Your task to perform on an android device: Show me productivity apps on the Play Store Image 0: 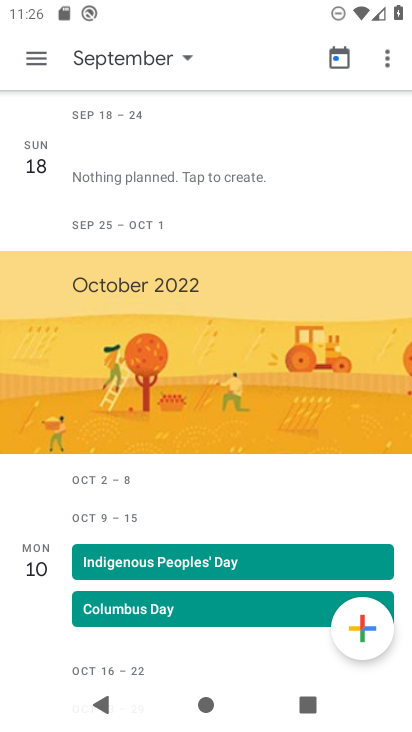
Step 0: click (34, 53)
Your task to perform on an android device: Show me productivity apps on the Play Store Image 1: 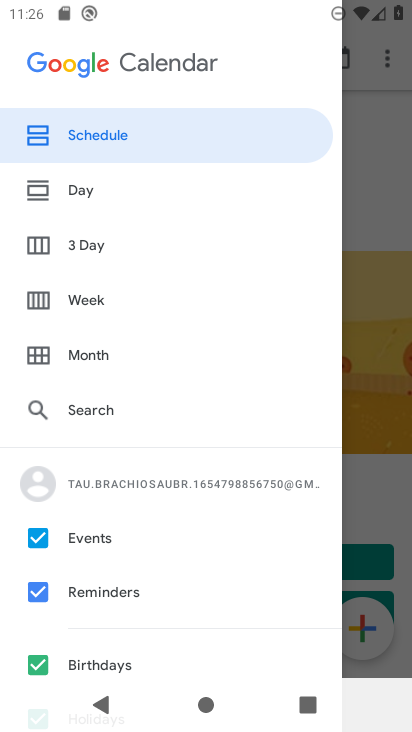
Step 1: drag from (128, 620) to (164, 334)
Your task to perform on an android device: Show me productivity apps on the Play Store Image 2: 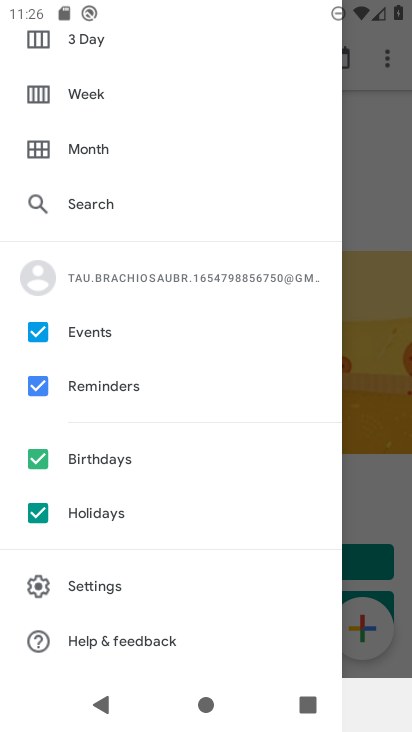
Step 2: press home button
Your task to perform on an android device: Show me productivity apps on the Play Store Image 3: 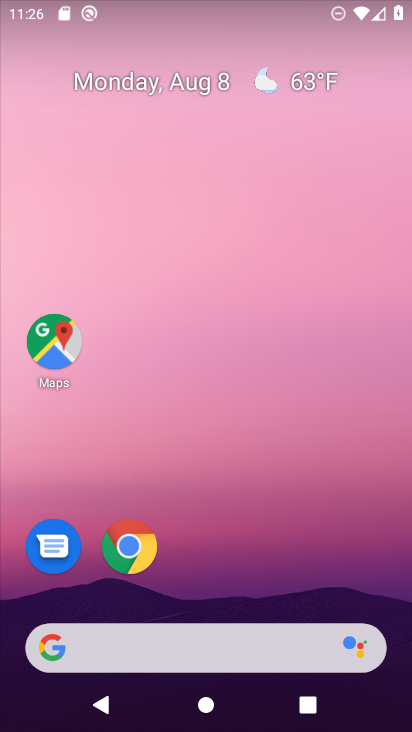
Step 3: drag from (209, 584) to (196, 38)
Your task to perform on an android device: Show me productivity apps on the Play Store Image 4: 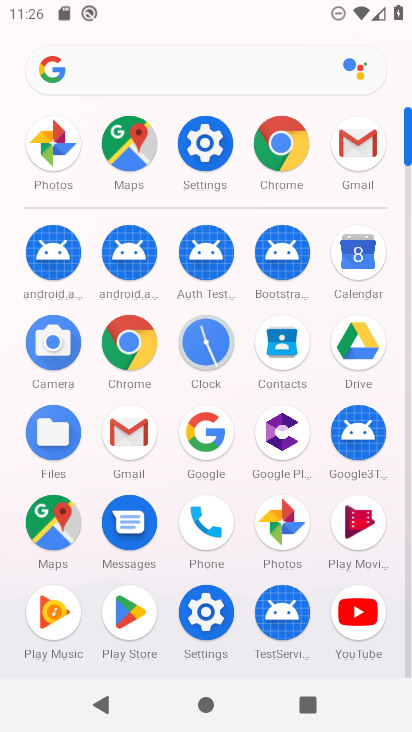
Step 4: click (126, 610)
Your task to perform on an android device: Show me productivity apps on the Play Store Image 5: 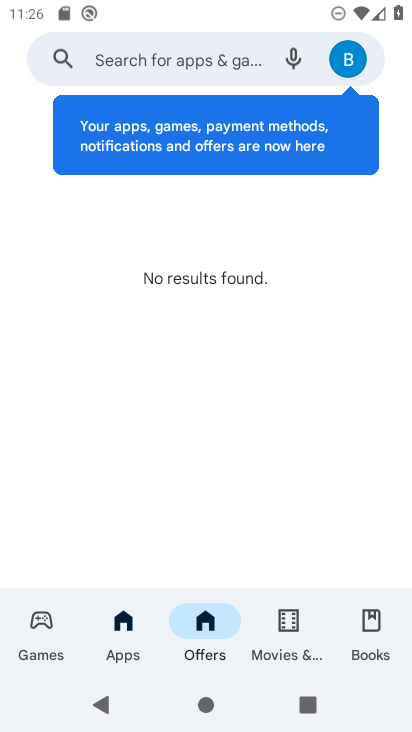
Step 5: click (110, 625)
Your task to perform on an android device: Show me productivity apps on the Play Store Image 6: 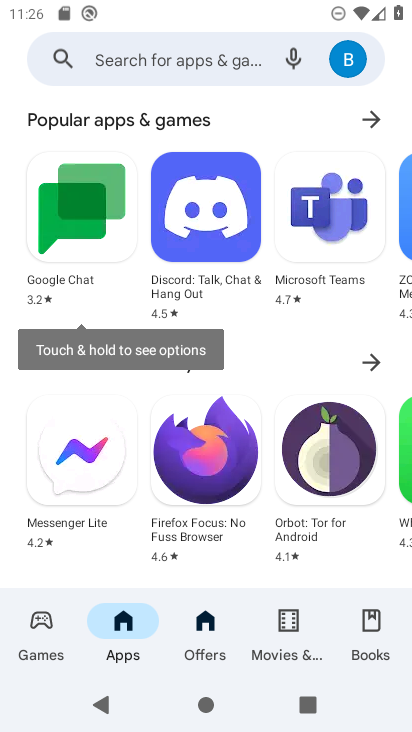
Step 6: drag from (198, 124) to (214, 617)
Your task to perform on an android device: Show me productivity apps on the Play Store Image 7: 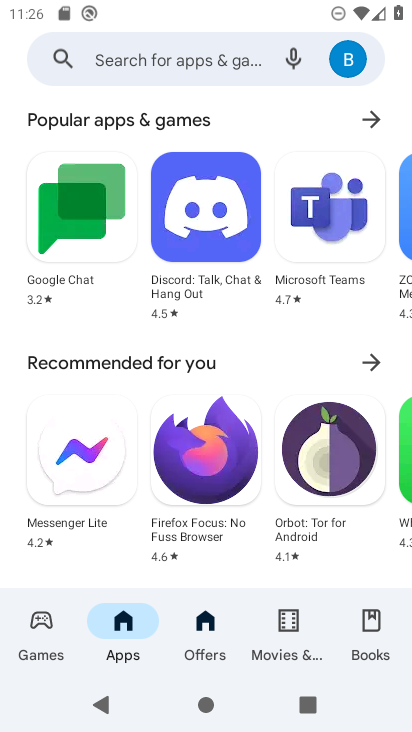
Step 7: click (43, 619)
Your task to perform on an android device: Show me productivity apps on the Play Store Image 8: 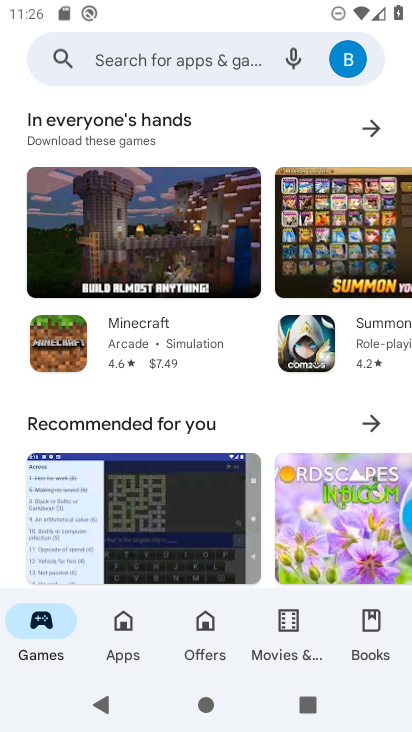
Step 8: click (121, 618)
Your task to perform on an android device: Show me productivity apps on the Play Store Image 9: 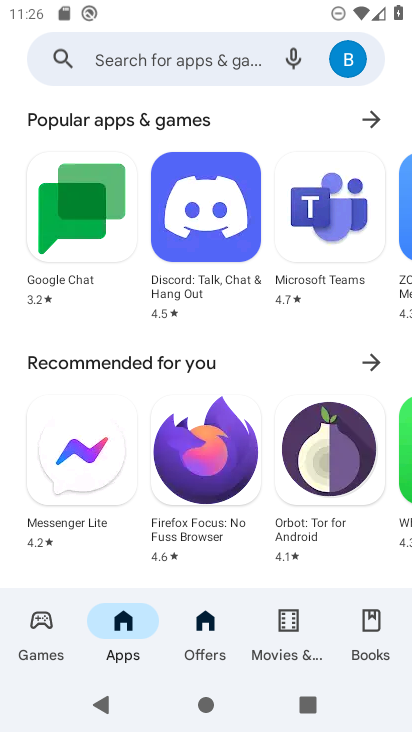
Step 9: drag from (221, 506) to (238, 129)
Your task to perform on an android device: Show me productivity apps on the Play Store Image 10: 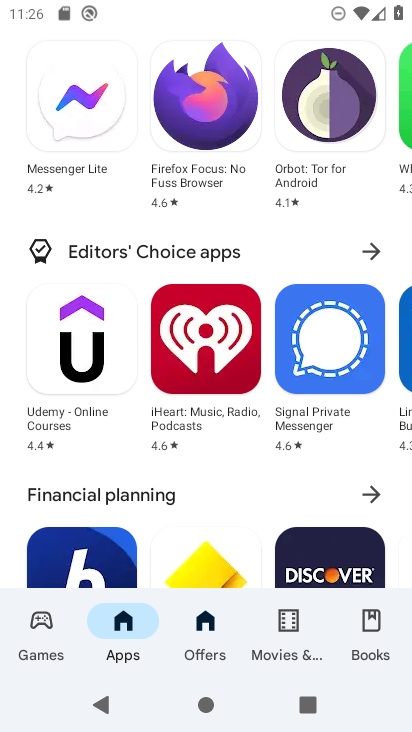
Step 10: drag from (222, 493) to (236, 77)
Your task to perform on an android device: Show me productivity apps on the Play Store Image 11: 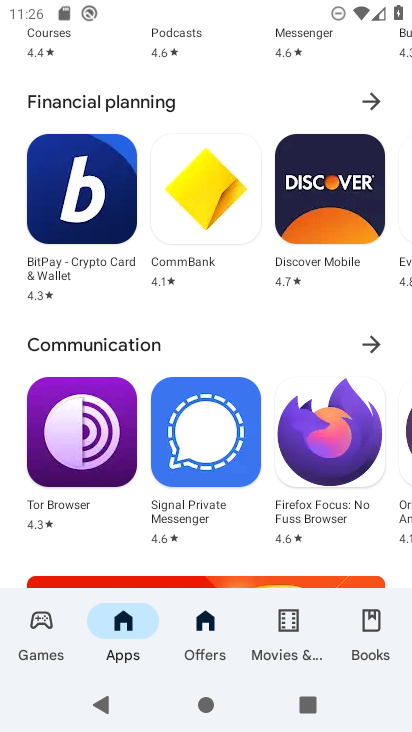
Step 11: drag from (241, 563) to (245, 170)
Your task to perform on an android device: Show me productivity apps on the Play Store Image 12: 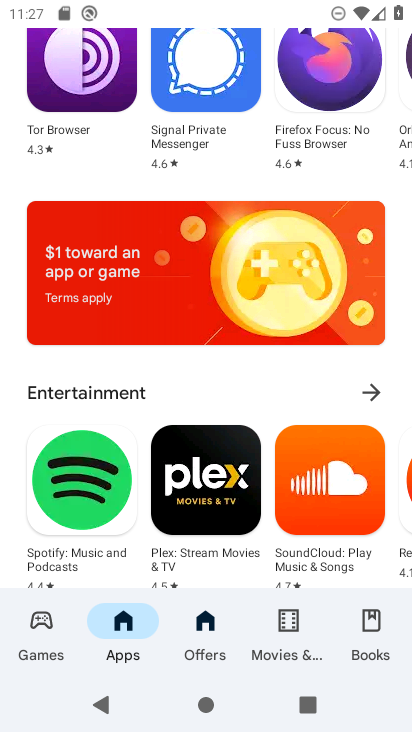
Step 12: drag from (270, 407) to (259, 105)
Your task to perform on an android device: Show me productivity apps on the Play Store Image 13: 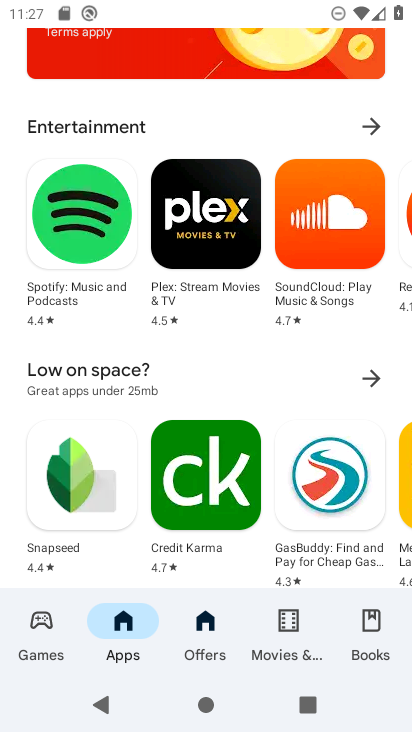
Step 13: drag from (349, 632) to (128, 642)
Your task to perform on an android device: Show me productivity apps on the Play Store Image 14: 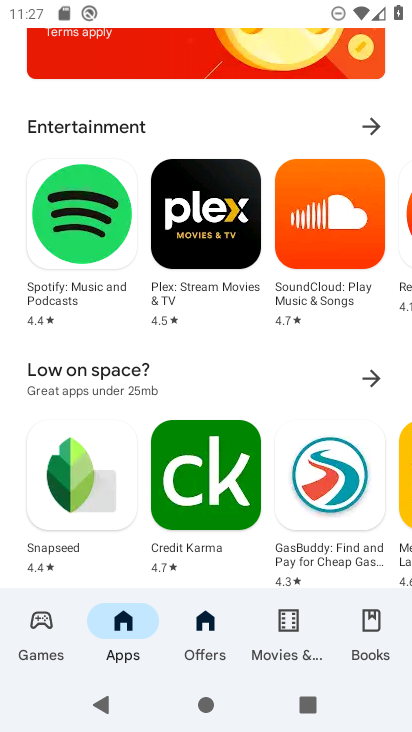
Step 14: click (203, 625)
Your task to perform on an android device: Show me productivity apps on the Play Store Image 15: 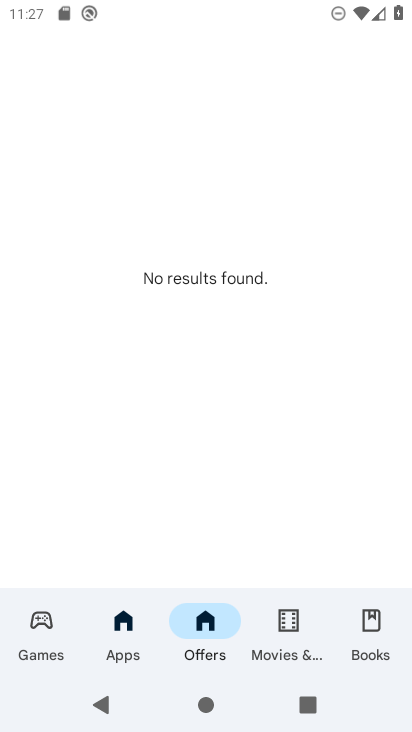
Step 15: click (284, 614)
Your task to perform on an android device: Show me productivity apps on the Play Store Image 16: 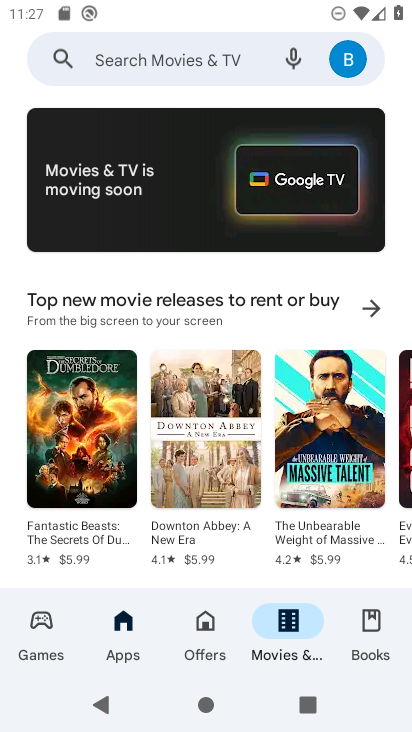
Step 16: click (119, 626)
Your task to perform on an android device: Show me productivity apps on the Play Store Image 17: 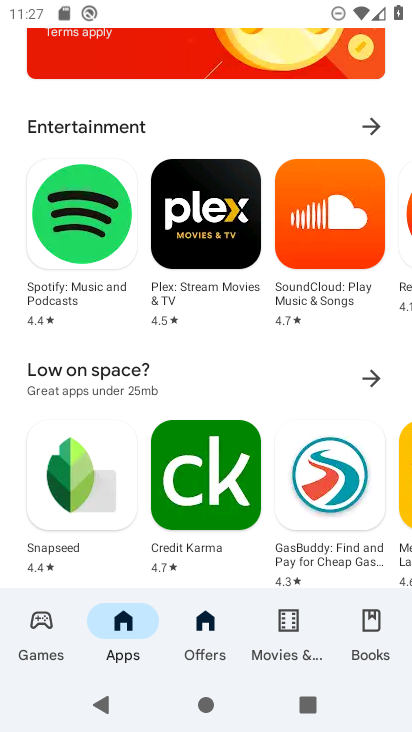
Step 17: task complete